Your task to perform on an android device: add a label to a message in the gmail app Image 0: 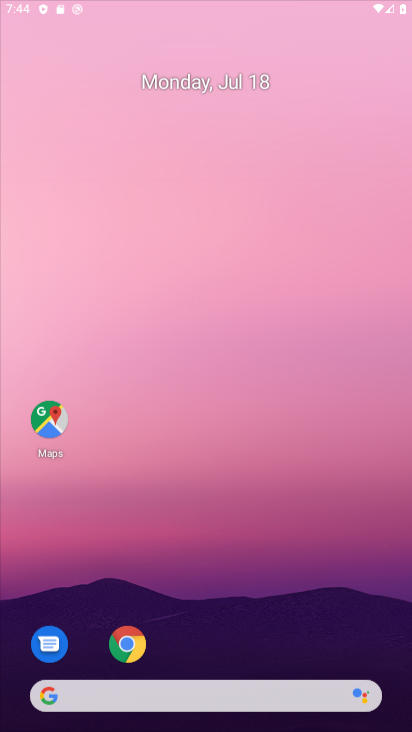
Step 0: press home button
Your task to perform on an android device: add a label to a message in the gmail app Image 1: 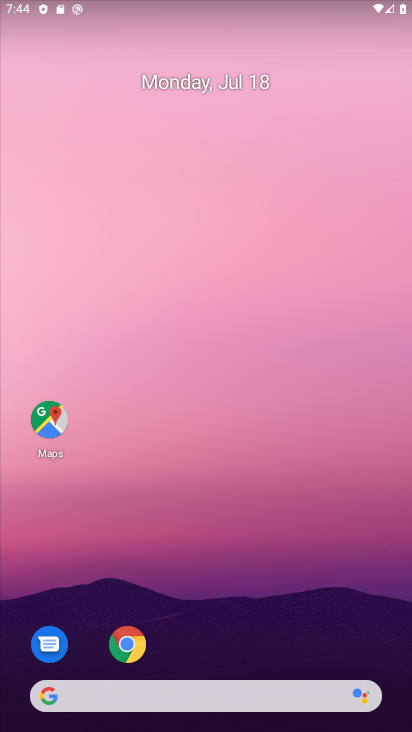
Step 1: drag from (217, 662) to (233, 2)
Your task to perform on an android device: add a label to a message in the gmail app Image 2: 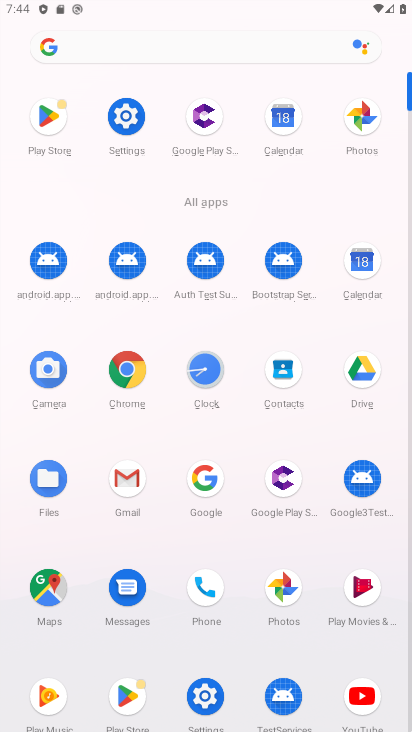
Step 2: click (125, 477)
Your task to perform on an android device: add a label to a message in the gmail app Image 3: 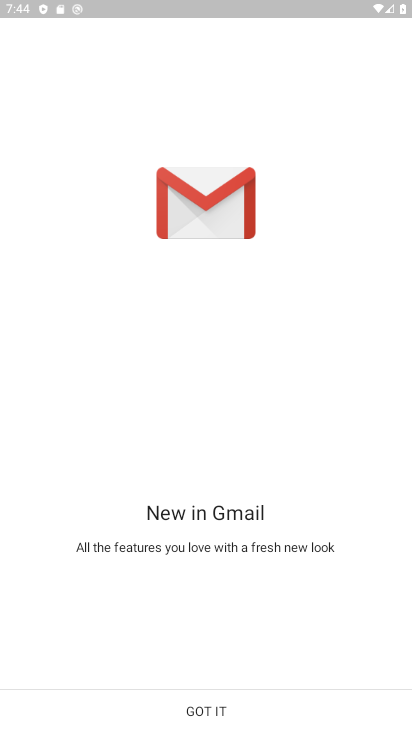
Step 3: click (211, 714)
Your task to perform on an android device: add a label to a message in the gmail app Image 4: 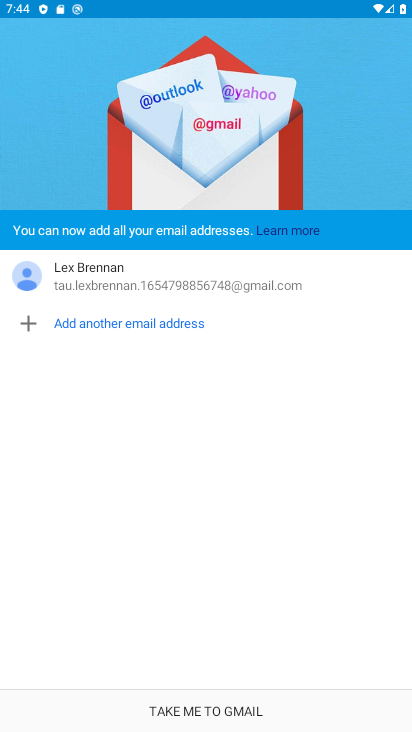
Step 4: click (202, 712)
Your task to perform on an android device: add a label to a message in the gmail app Image 5: 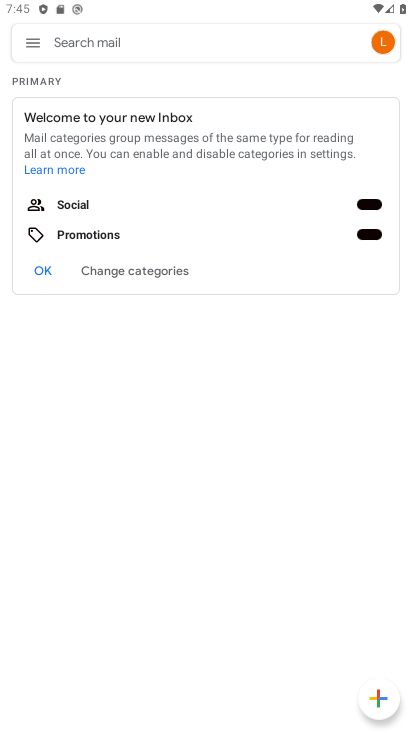
Step 5: click (27, 30)
Your task to perform on an android device: add a label to a message in the gmail app Image 6: 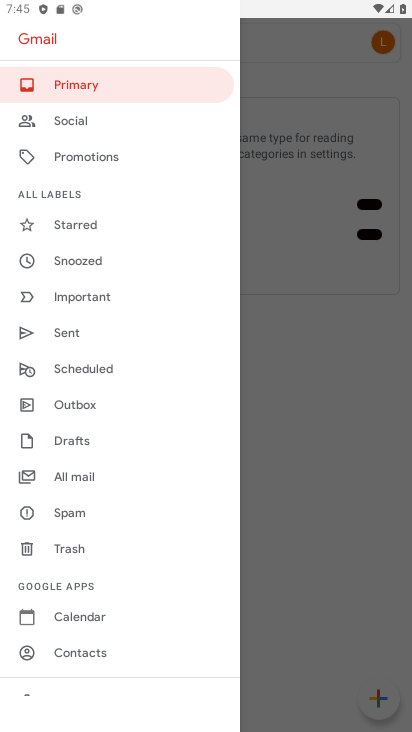
Step 6: click (79, 469)
Your task to perform on an android device: add a label to a message in the gmail app Image 7: 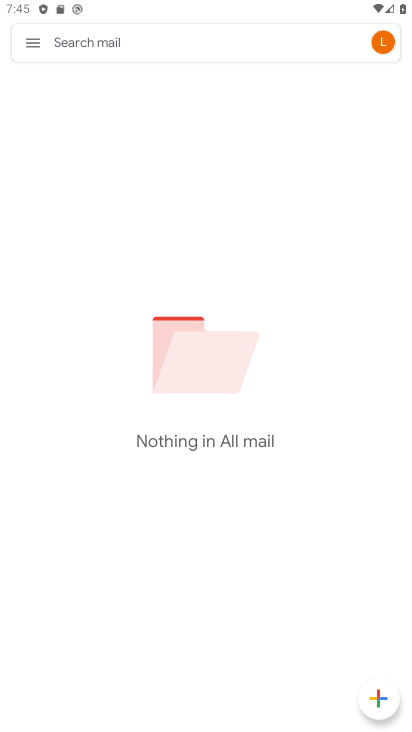
Step 7: task complete